Your task to perform on an android device: Open the web browser Image 0: 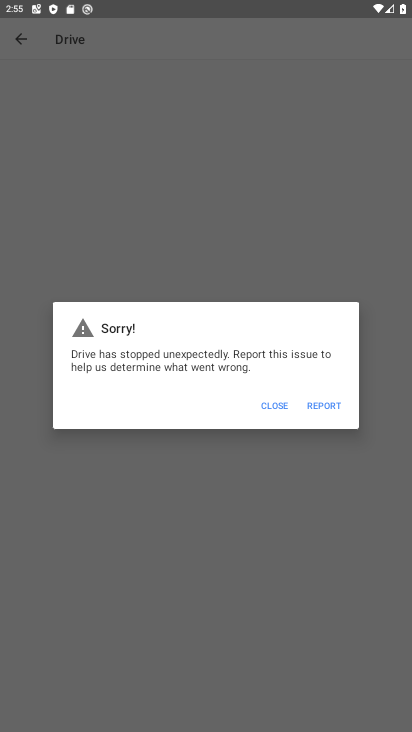
Step 0: press home button
Your task to perform on an android device: Open the web browser Image 1: 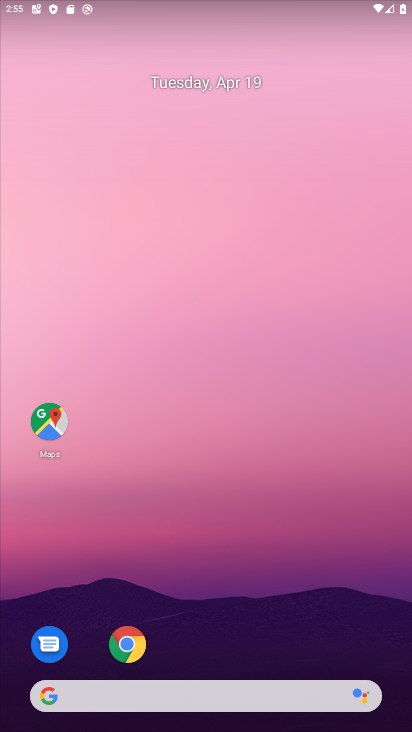
Step 1: drag from (209, 634) to (251, 67)
Your task to perform on an android device: Open the web browser Image 2: 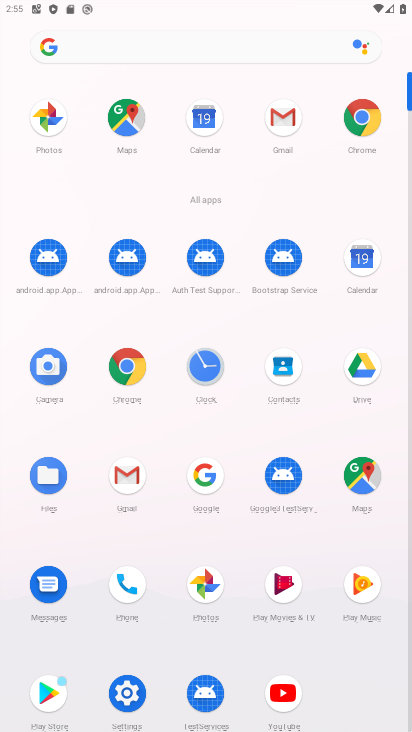
Step 2: click (134, 362)
Your task to perform on an android device: Open the web browser Image 3: 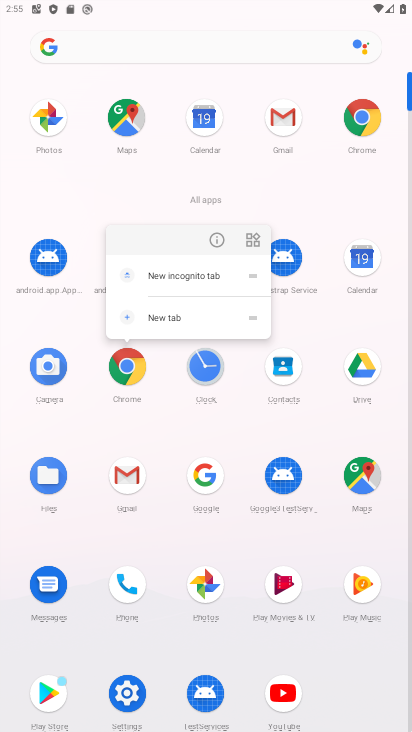
Step 3: click (126, 367)
Your task to perform on an android device: Open the web browser Image 4: 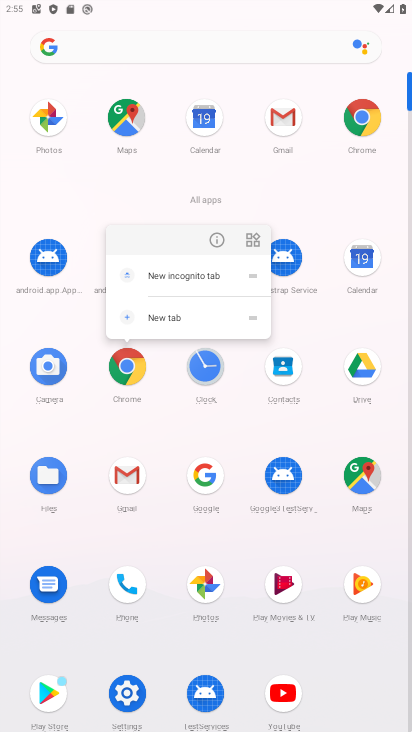
Step 4: click (125, 369)
Your task to perform on an android device: Open the web browser Image 5: 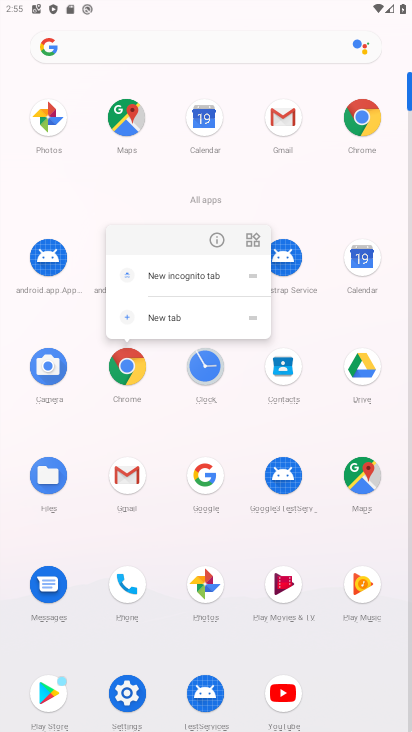
Step 5: click (367, 662)
Your task to perform on an android device: Open the web browser Image 6: 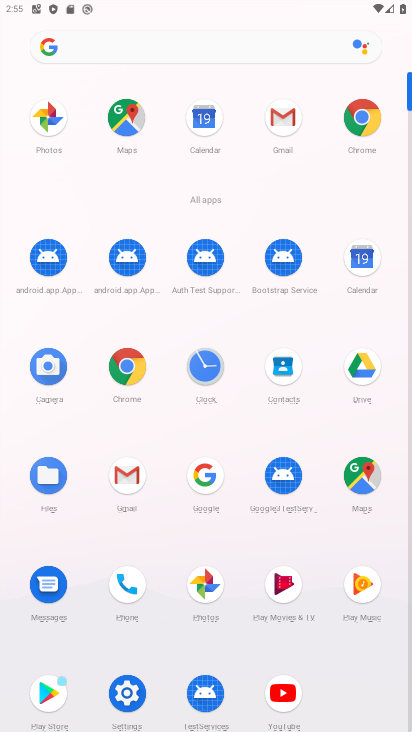
Step 6: click (126, 370)
Your task to perform on an android device: Open the web browser Image 7: 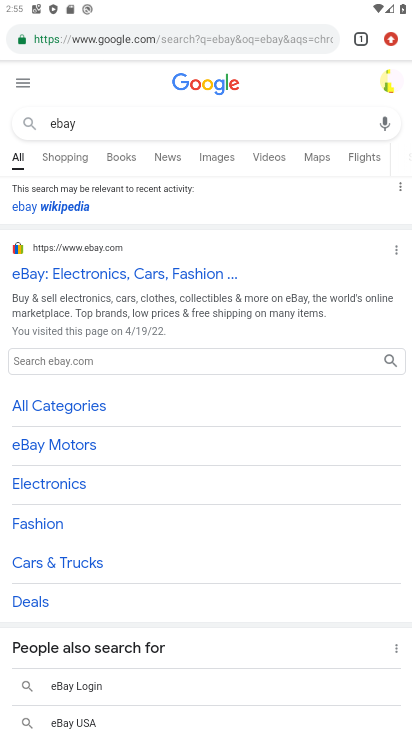
Step 7: task complete